Your task to perform on an android device: Check the settings for the Google Play Movies app Image 0: 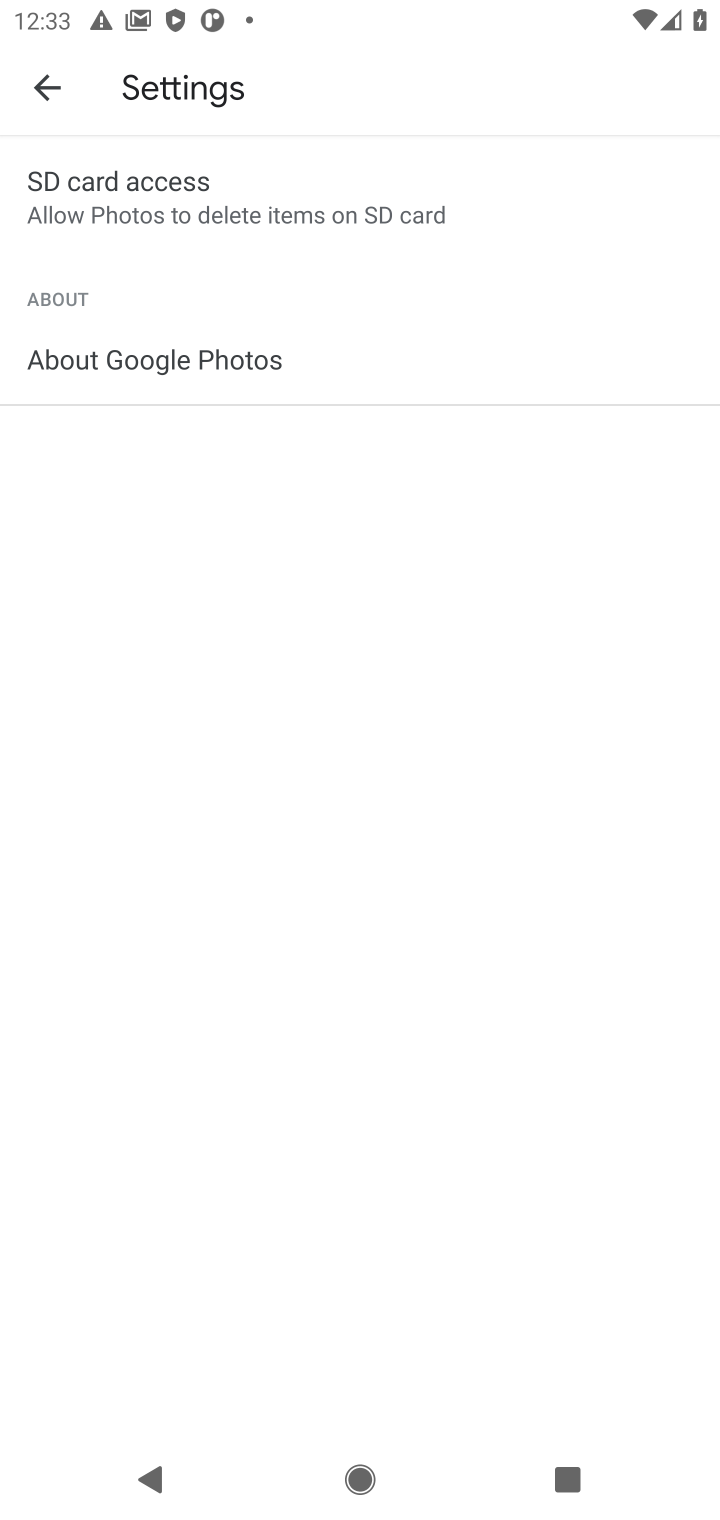
Step 0: press home button
Your task to perform on an android device: Check the settings for the Google Play Movies app Image 1: 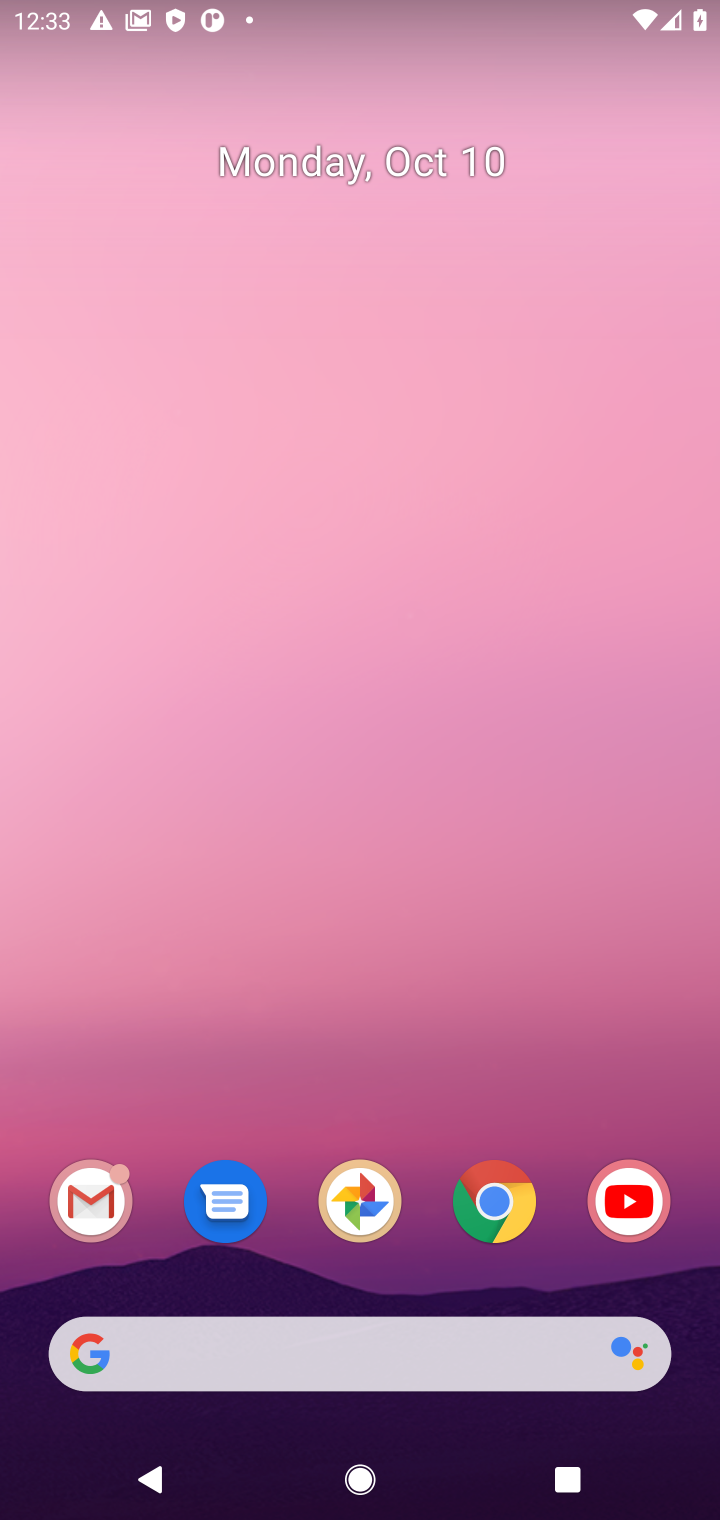
Step 1: drag from (549, 1231) to (547, 76)
Your task to perform on an android device: Check the settings for the Google Play Movies app Image 2: 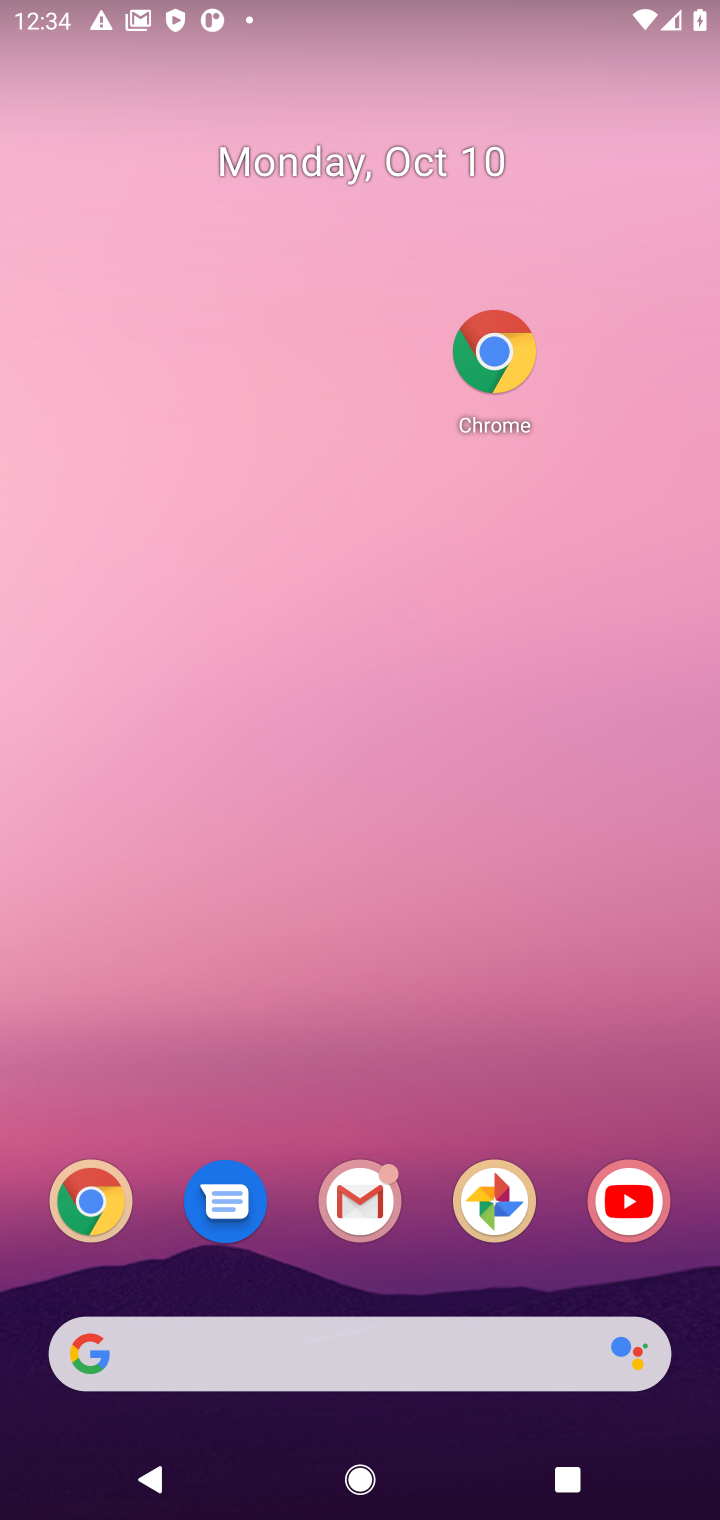
Step 2: drag from (433, 1134) to (433, 493)
Your task to perform on an android device: Check the settings for the Google Play Movies app Image 3: 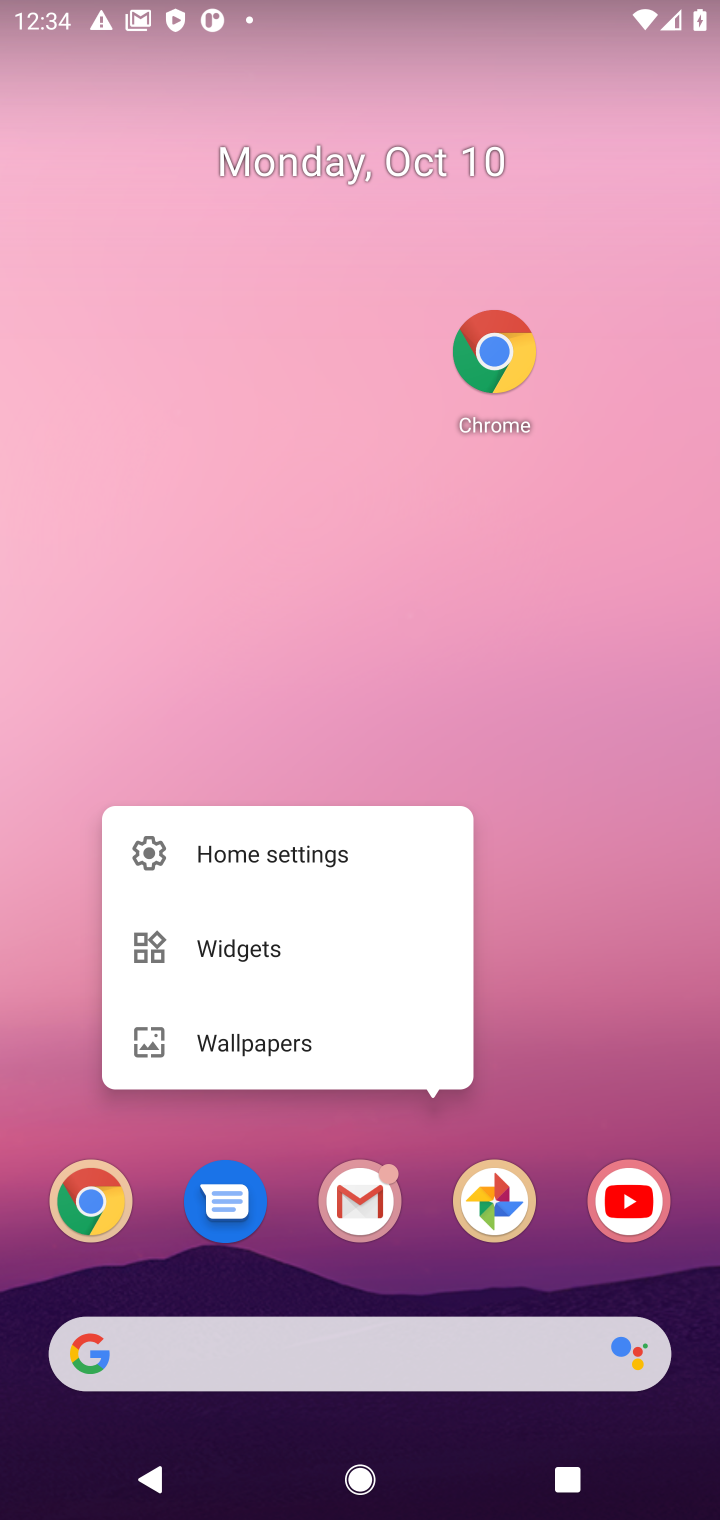
Step 3: drag from (664, 1065) to (674, 178)
Your task to perform on an android device: Check the settings for the Google Play Movies app Image 4: 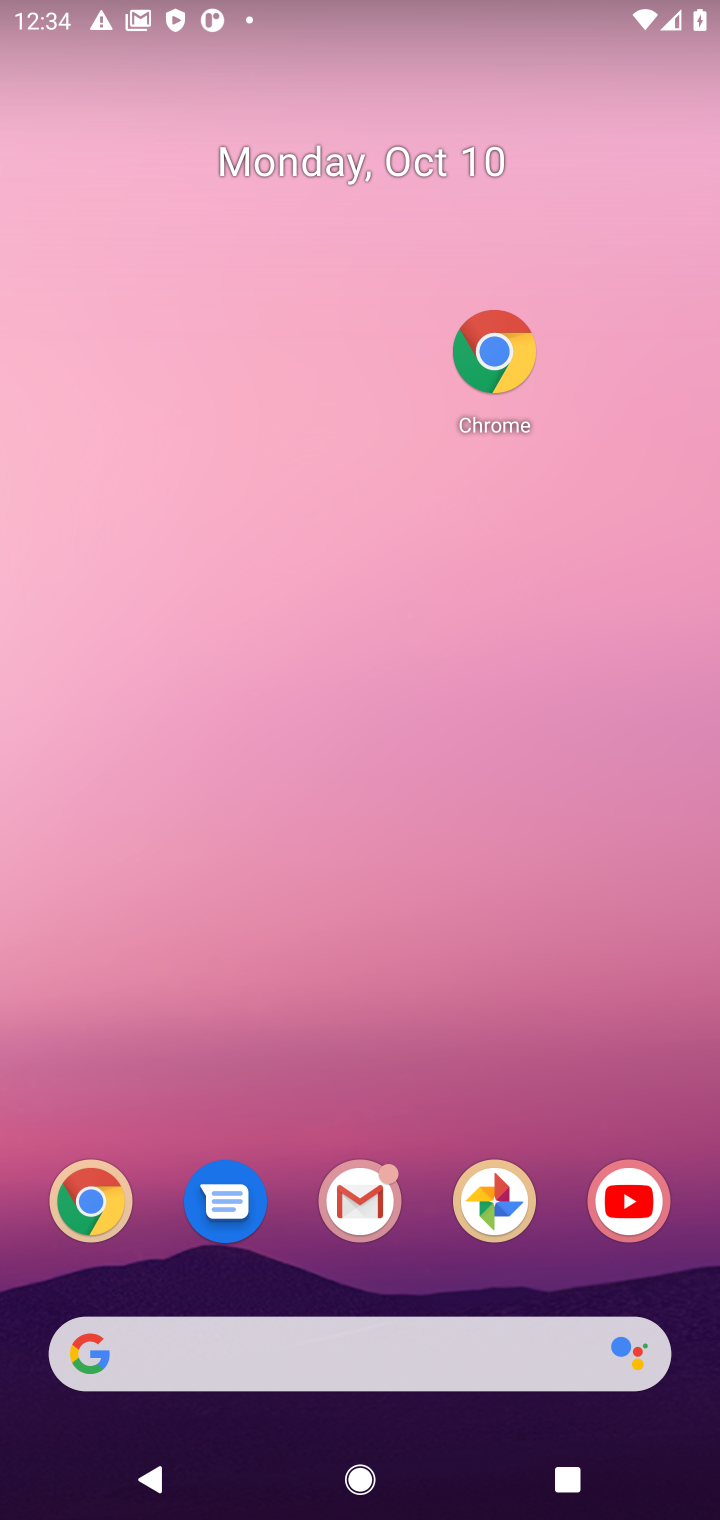
Step 4: drag from (689, 1020) to (681, 216)
Your task to perform on an android device: Check the settings for the Google Play Movies app Image 5: 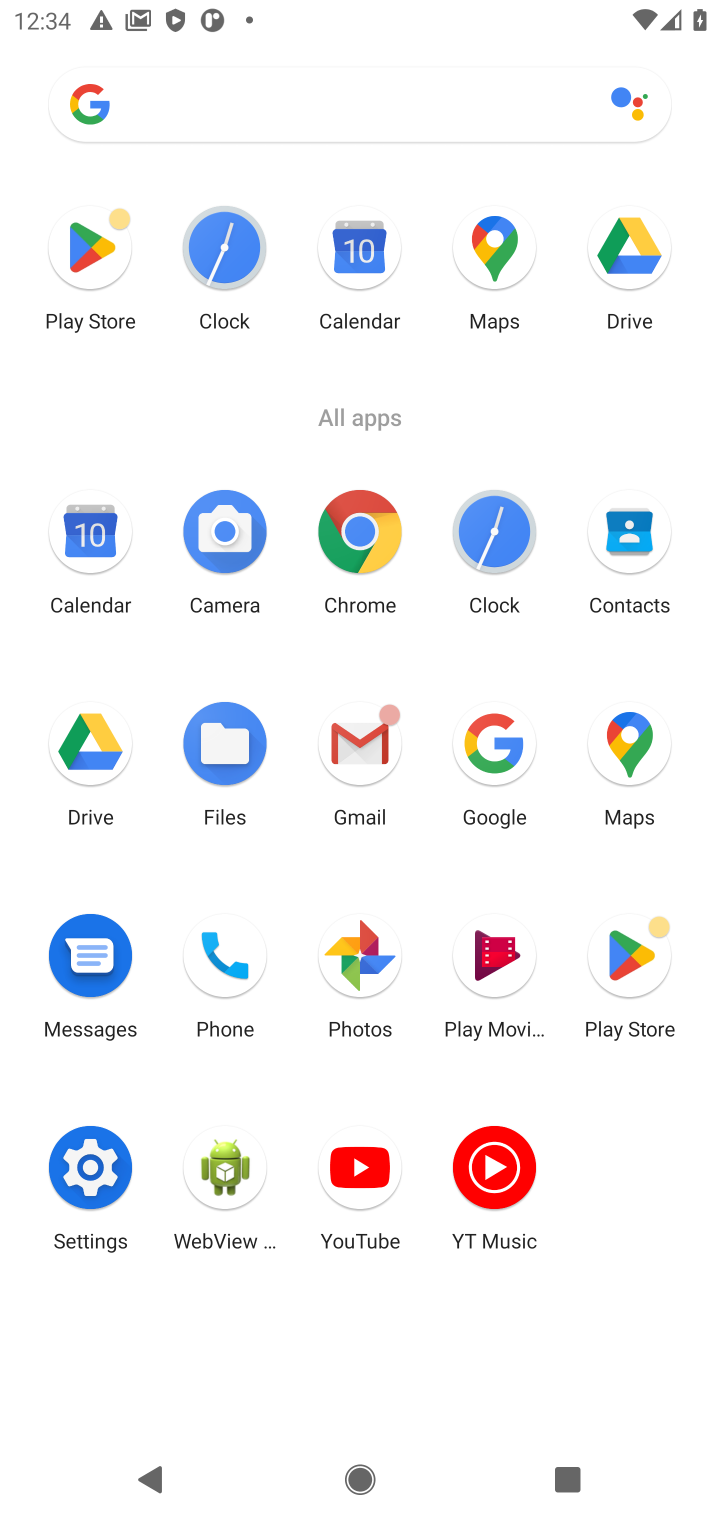
Step 5: click (481, 979)
Your task to perform on an android device: Check the settings for the Google Play Movies app Image 6: 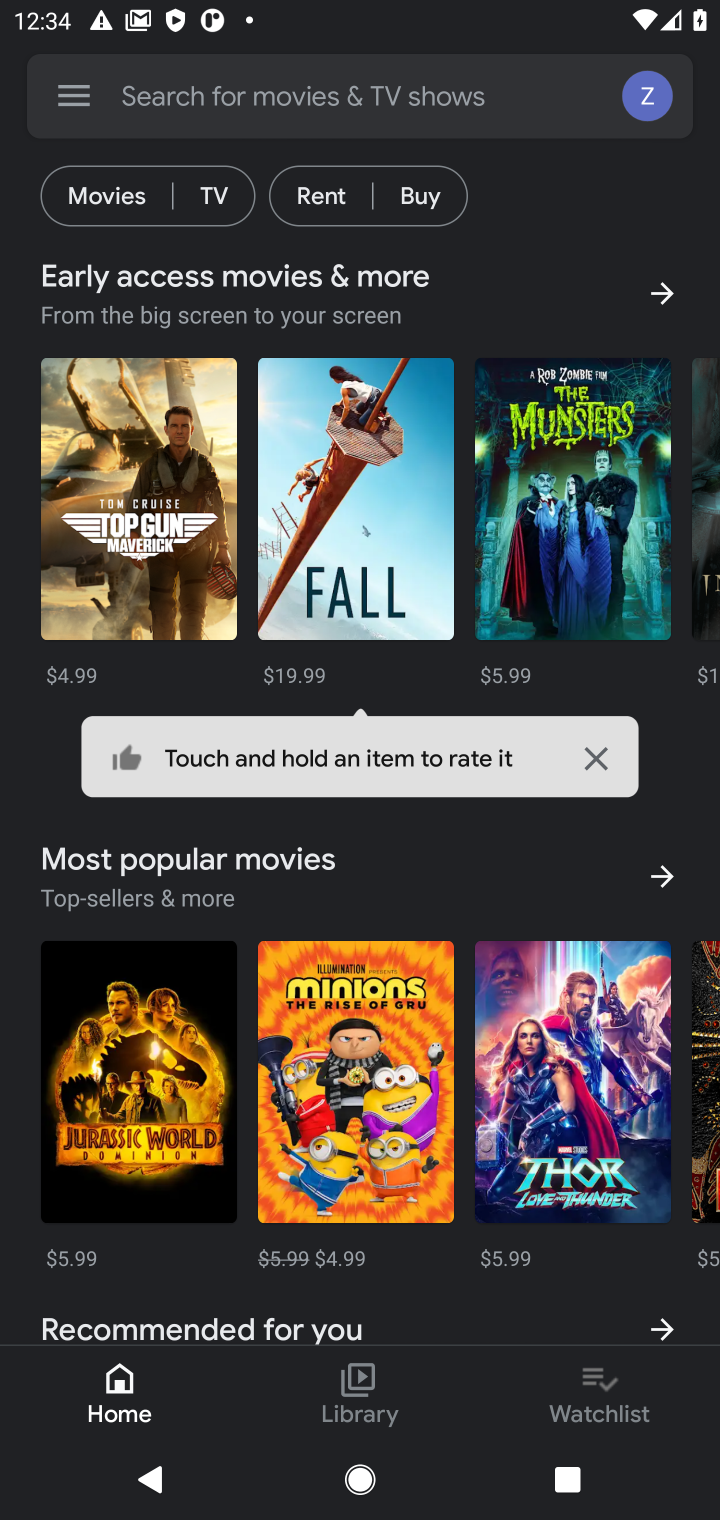
Step 6: click (87, 107)
Your task to perform on an android device: Check the settings for the Google Play Movies app Image 7: 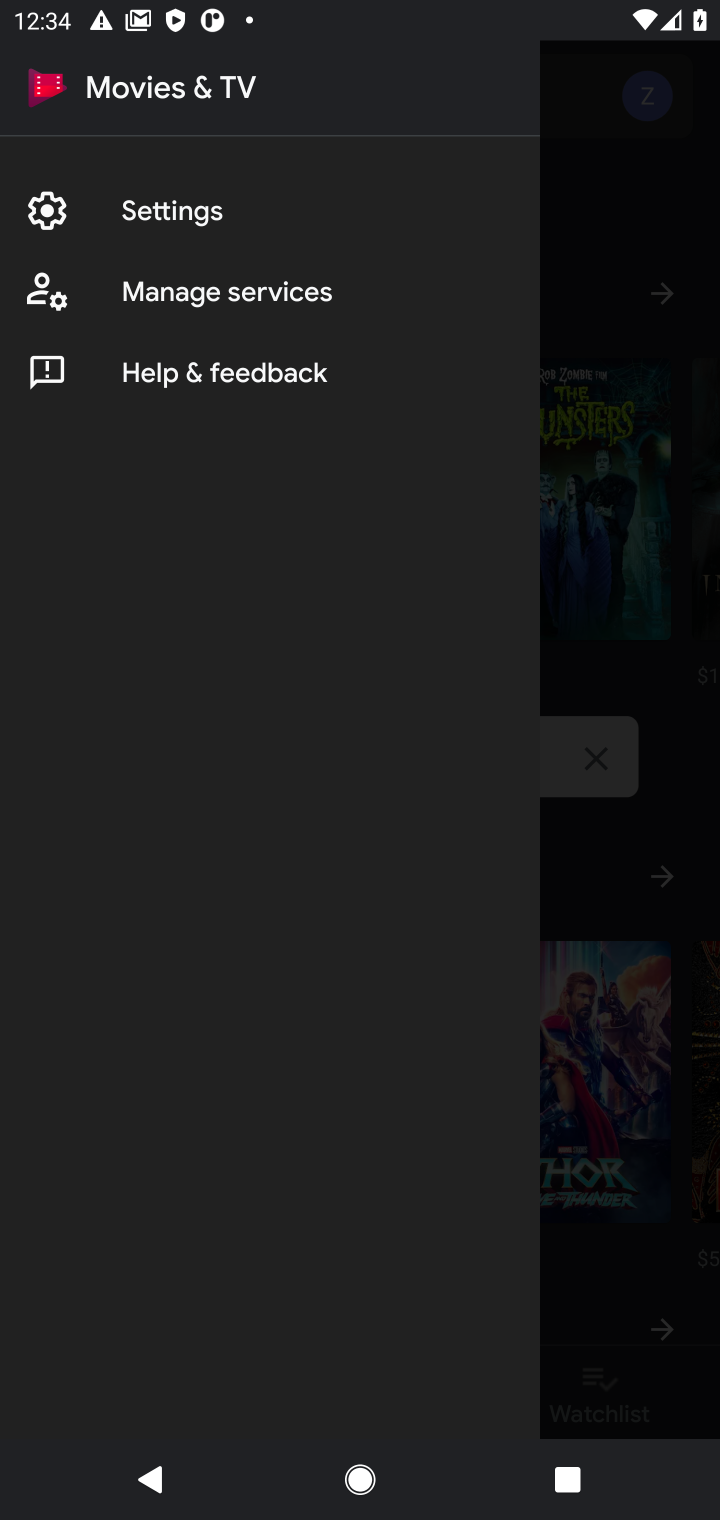
Step 7: click (124, 220)
Your task to perform on an android device: Check the settings for the Google Play Movies app Image 8: 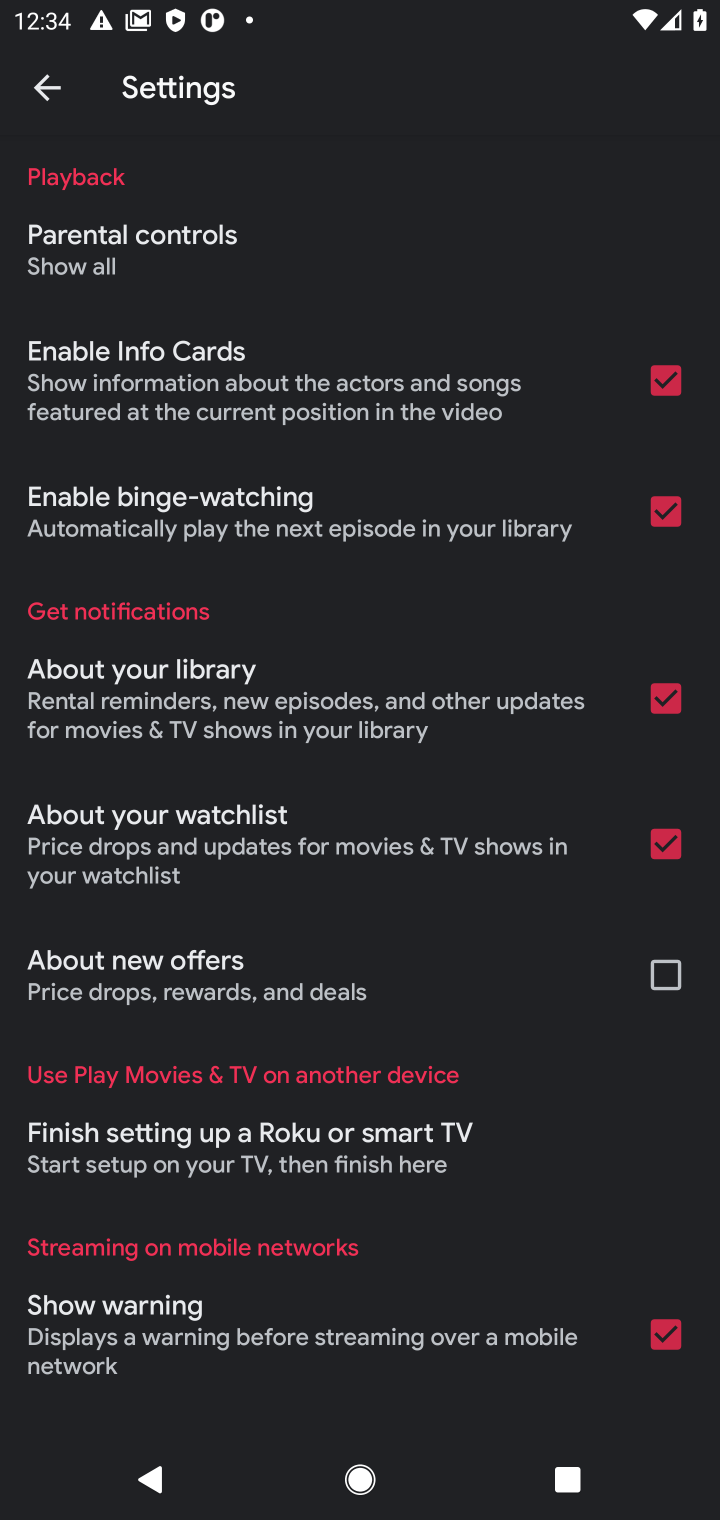
Step 8: task complete